Your task to perform on an android device: turn off data saver in the chrome app Image 0: 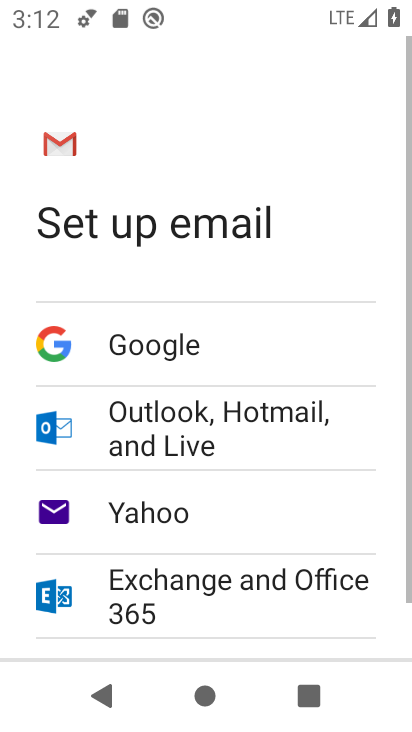
Step 0: press home button
Your task to perform on an android device: turn off data saver in the chrome app Image 1: 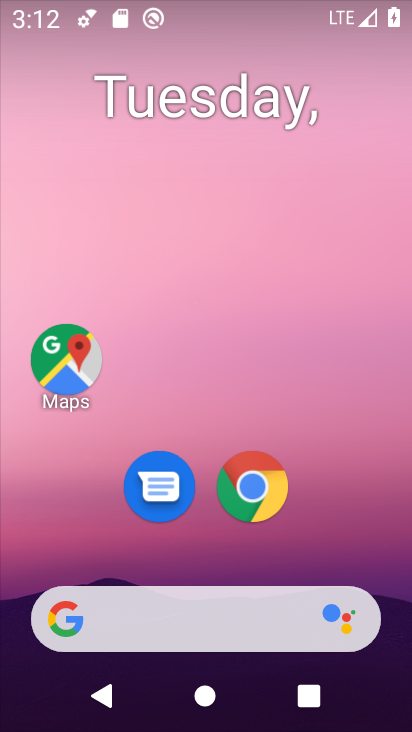
Step 1: press home button
Your task to perform on an android device: turn off data saver in the chrome app Image 2: 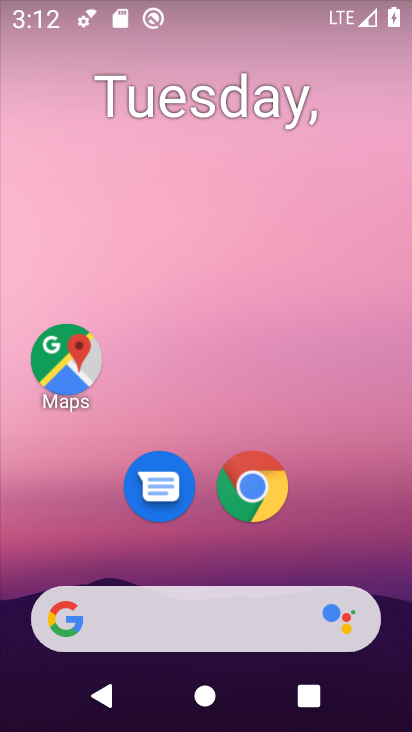
Step 2: drag from (199, 559) to (266, 167)
Your task to perform on an android device: turn off data saver in the chrome app Image 3: 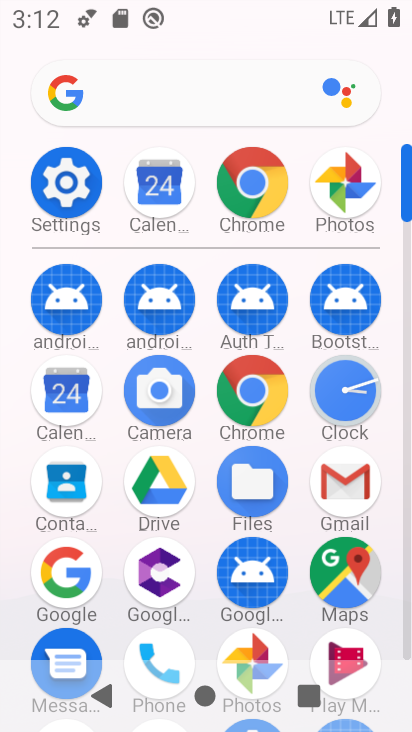
Step 3: click (255, 178)
Your task to perform on an android device: turn off data saver in the chrome app Image 4: 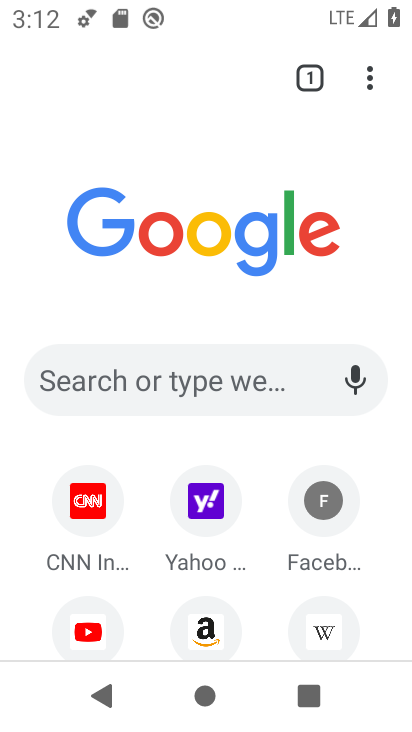
Step 4: click (369, 78)
Your task to perform on an android device: turn off data saver in the chrome app Image 5: 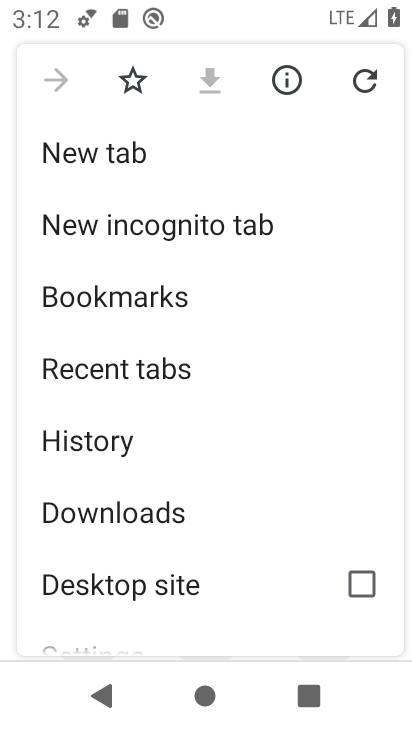
Step 5: drag from (215, 571) to (248, 79)
Your task to perform on an android device: turn off data saver in the chrome app Image 6: 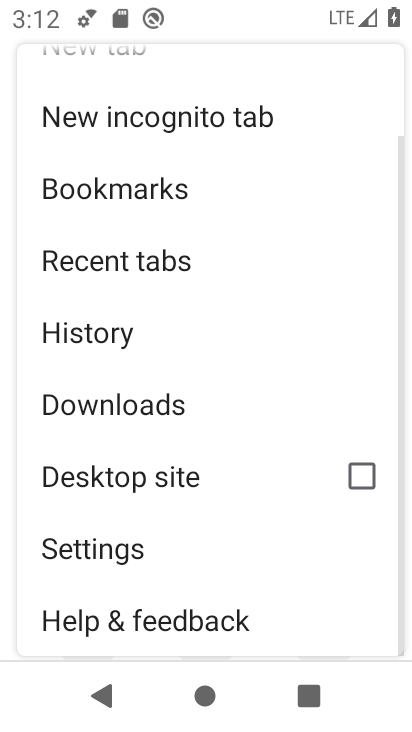
Step 6: click (159, 541)
Your task to perform on an android device: turn off data saver in the chrome app Image 7: 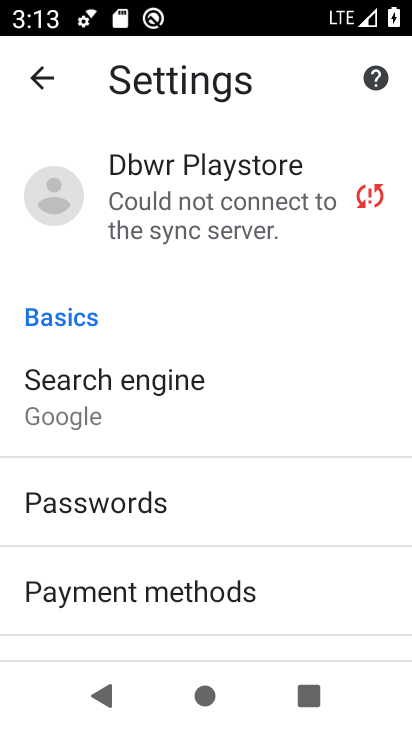
Step 7: drag from (246, 596) to (310, 119)
Your task to perform on an android device: turn off data saver in the chrome app Image 8: 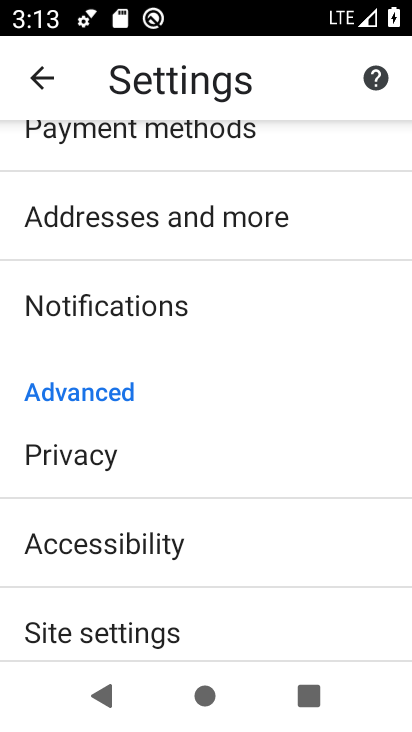
Step 8: drag from (208, 624) to (201, 138)
Your task to perform on an android device: turn off data saver in the chrome app Image 9: 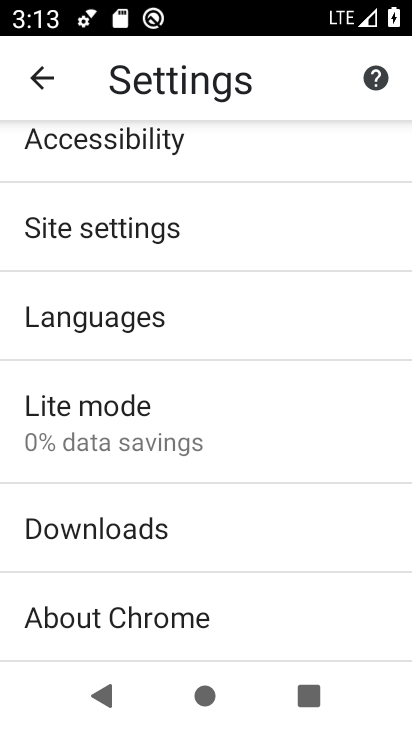
Step 9: click (166, 432)
Your task to perform on an android device: turn off data saver in the chrome app Image 10: 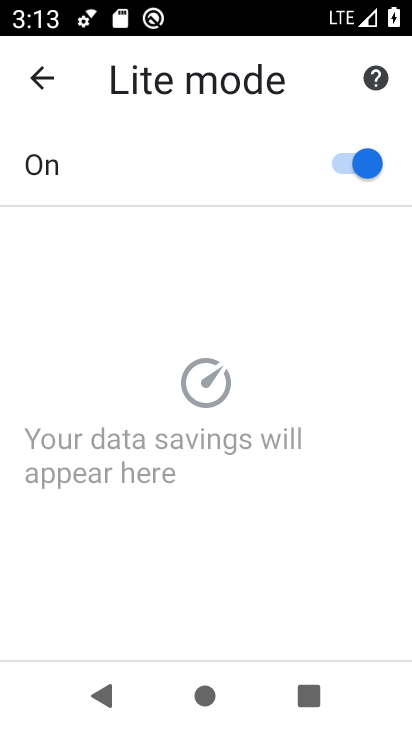
Step 10: click (348, 163)
Your task to perform on an android device: turn off data saver in the chrome app Image 11: 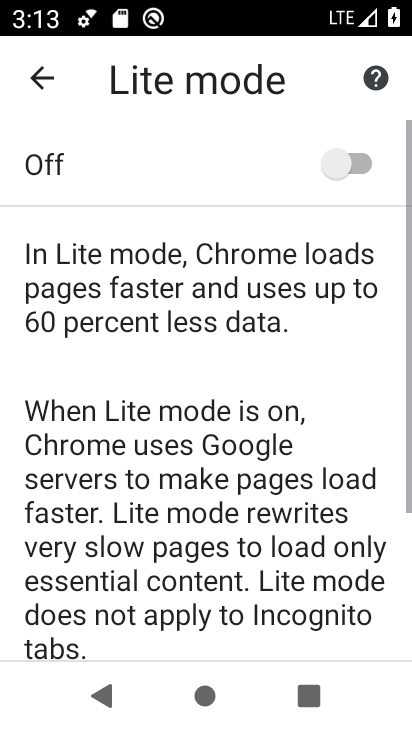
Step 11: task complete